Your task to perform on an android device: check out phone information Image 0: 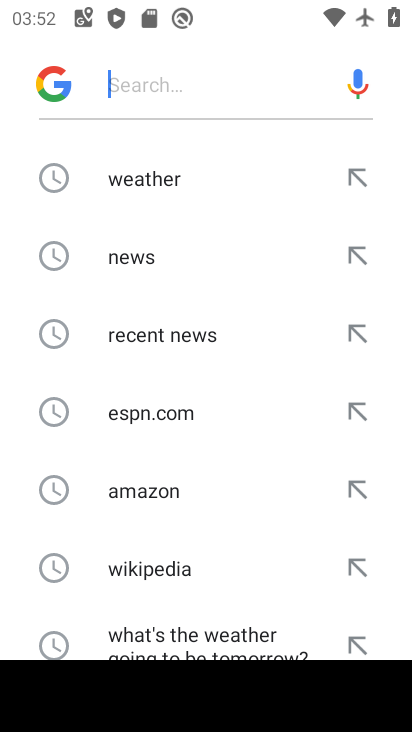
Step 0: press home button
Your task to perform on an android device: check out phone information Image 1: 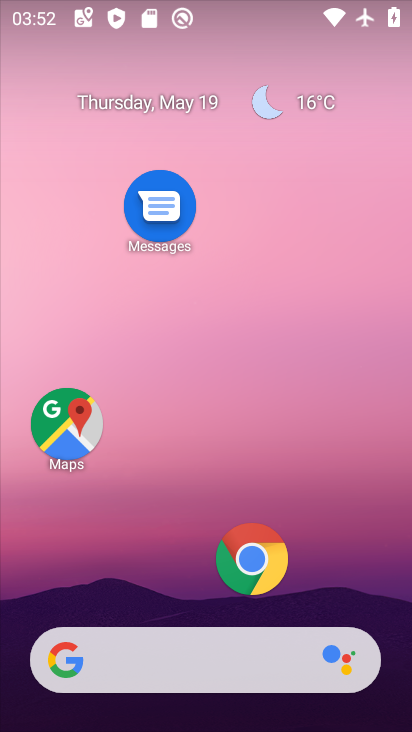
Step 1: drag from (165, 592) to (244, 198)
Your task to perform on an android device: check out phone information Image 2: 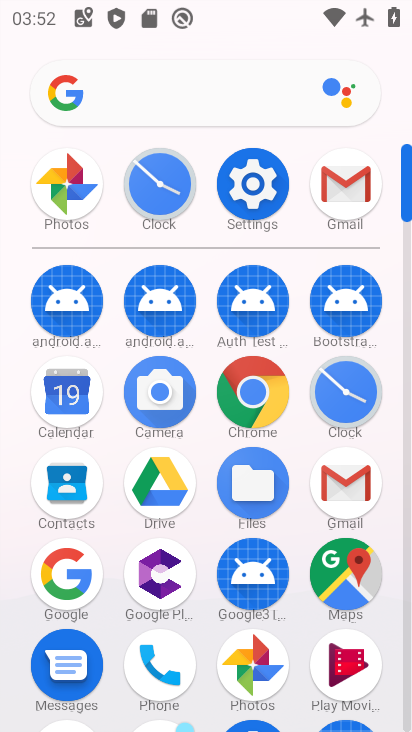
Step 2: click (257, 199)
Your task to perform on an android device: check out phone information Image 3: 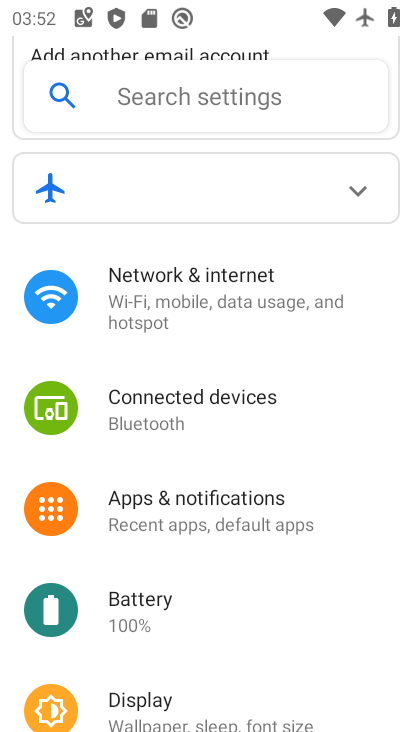
Step 3: drag from (237, 623) to (239, 244)
Your task to perform on an android device: check out phone information Image 4: 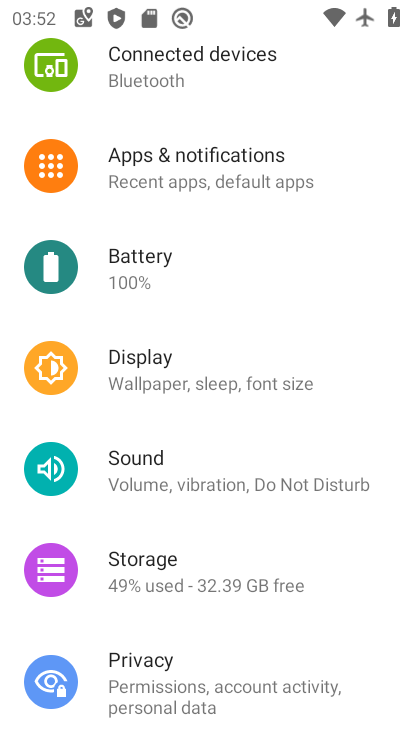
Step 4: drag from (262, 601) to (268, 305)
Your task to perform on an android device: check out phone information Image 5: 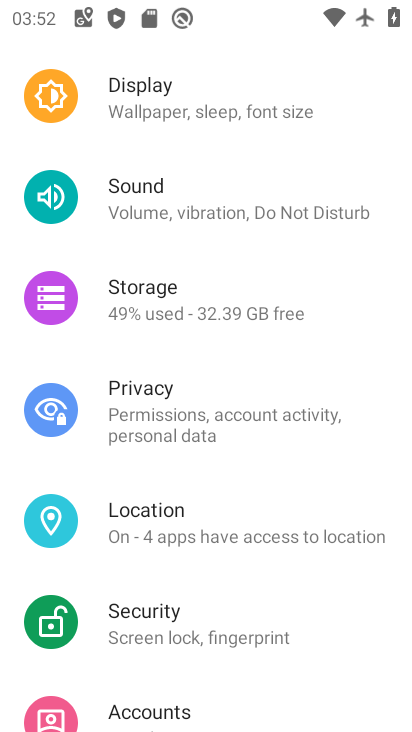
Step 5: drag from (254, 502) to (254, 251)
Your task to perform on an android device: check out phone information Image 6: 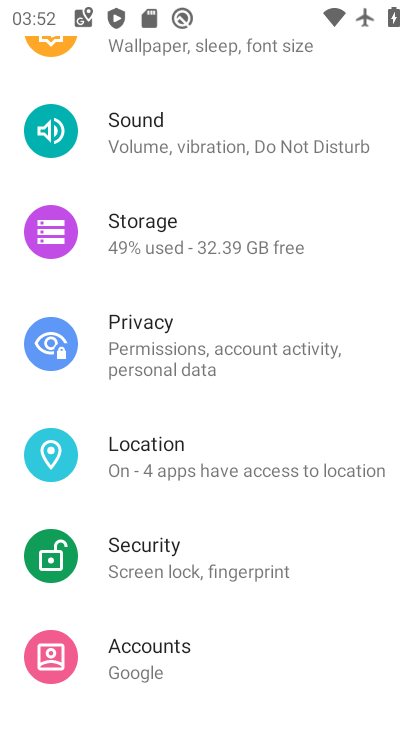
Step 6: drag from (257, 508) to (259, 259)
Your task to perform on an android device: check out phone information Image 7: 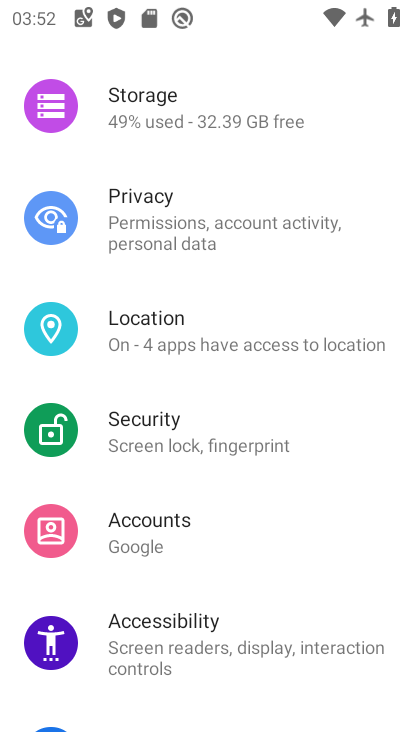
Step 7: drag from (220, 548) to (231, 254)
Your task to perform on an android device: check out phone information Image 8: 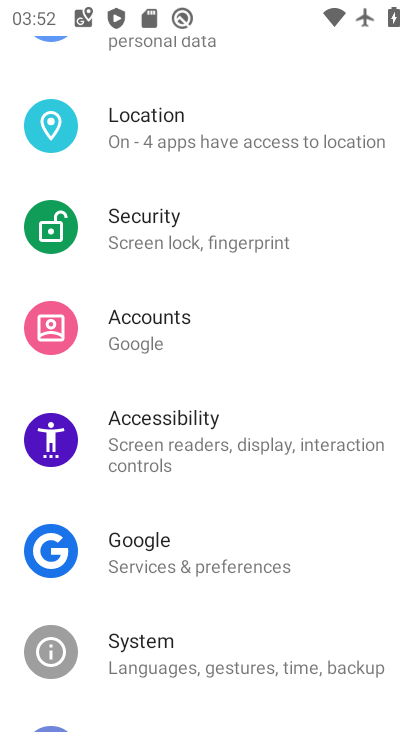
Step 8: drag from (231, 572) to (236, 230)
Your task to perform on an android device: check out phone information Image 9: 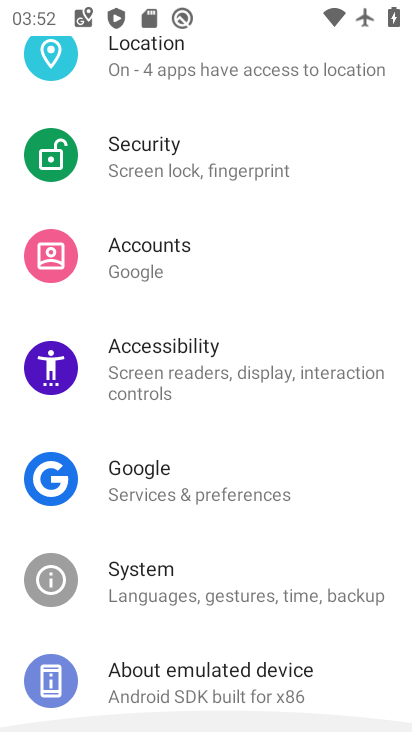
Step 9: drag from (225, 565) to (236, 227)
Your task to perform on an android device: check out phone information Image 10: 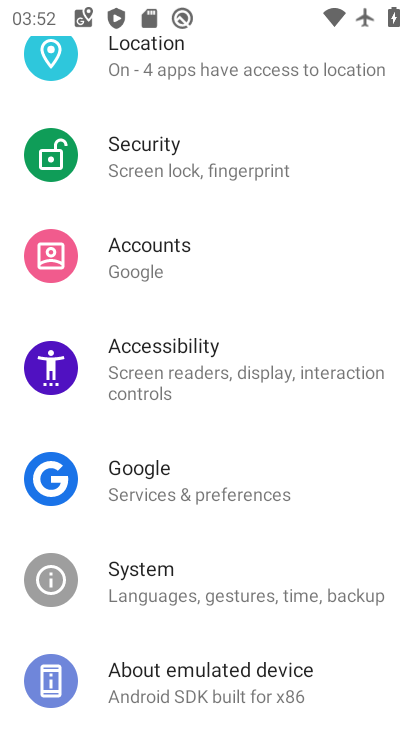
Step 10: click (197, 675)
Your task to perform on an android device: check out phone information Image 11: 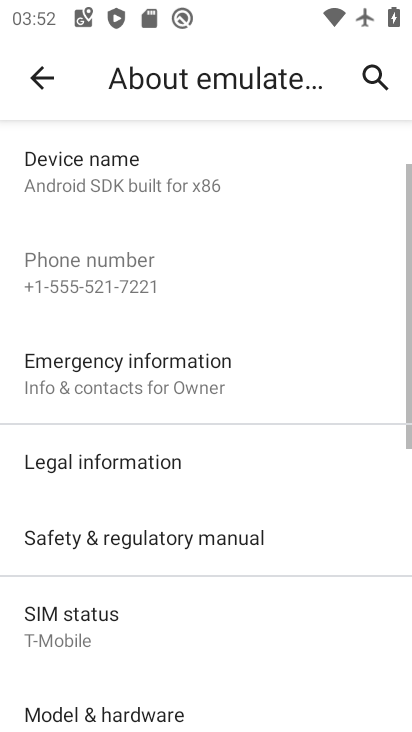
Step 11: task complete